Your task to perform on an android device: Search for Italian restaurants on Maps Image 0: 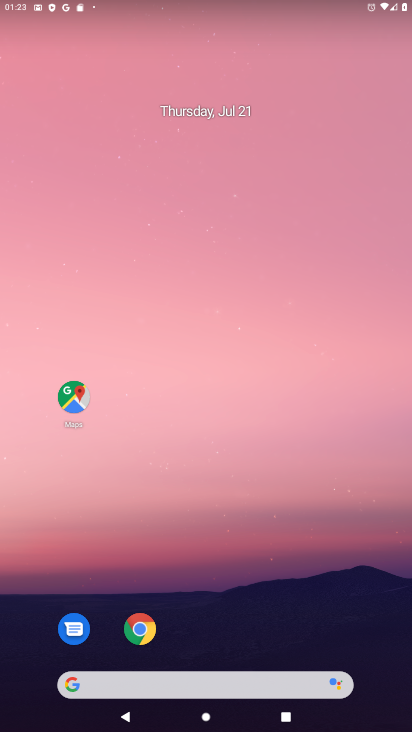
Step 0: click (69, 405)
Your task to perform on an android device: Search for Italian restaurants on Maps Image 1: 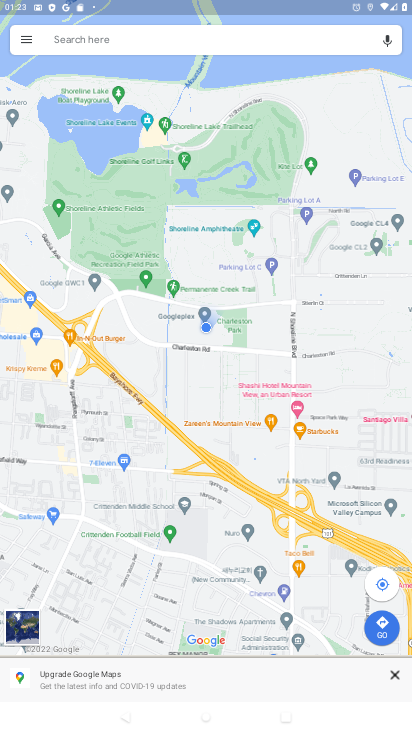
Step 1: click (142, 44)
Your task to perform on an android device: Search for Italian restaurants on Maps Image 2: 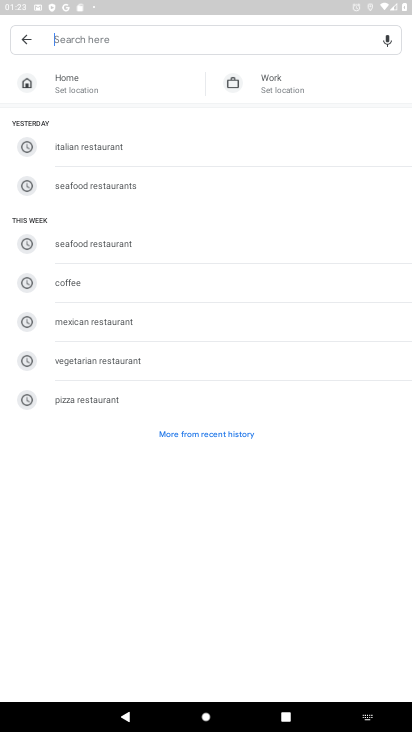
Step 2: click (60, 148)
Your task to perform on an android device: Search for Italian restaurants on Maps Image 3: 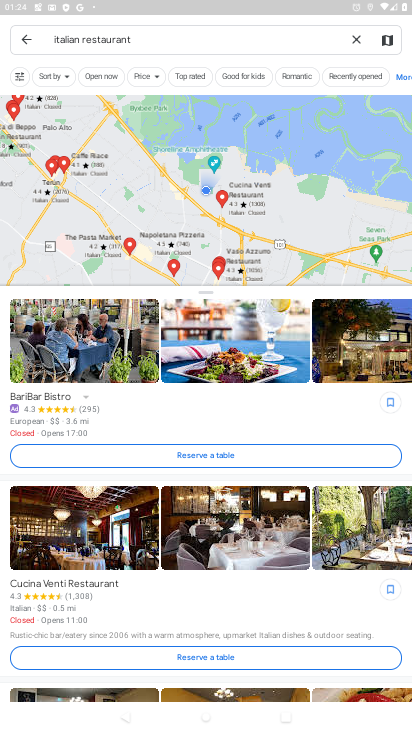
Step 3: task complete